Your task to perform on an android device: Go to Reddit.com Image 0: 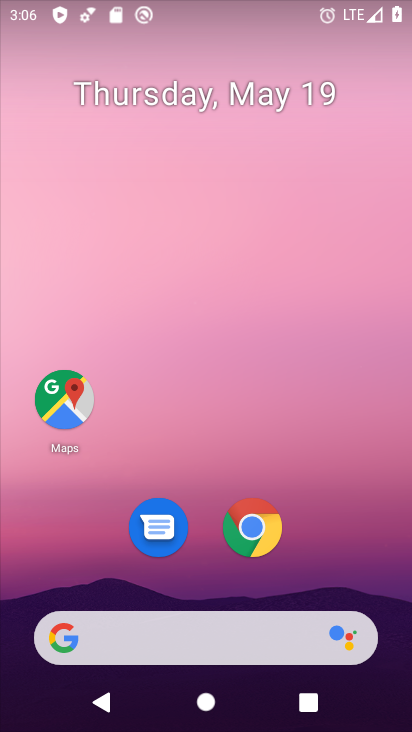
Step 0: click (258, 528)
Your task to perform on an android device: Go to Reddit.com Image 1: 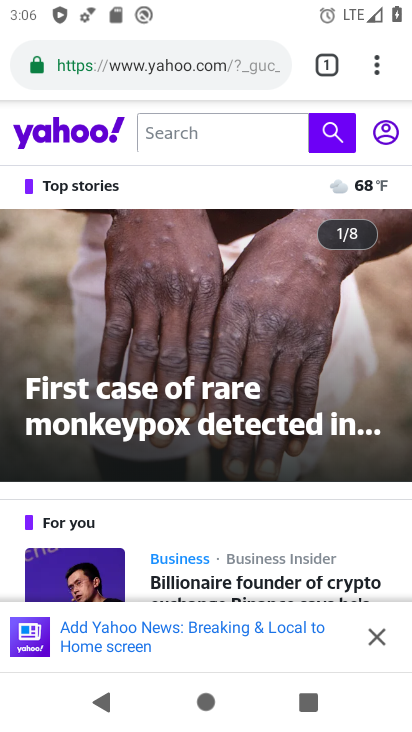
Step 1: click (328, 71)
Your task to perform on an android device: Go to Reddit.com Image 2: 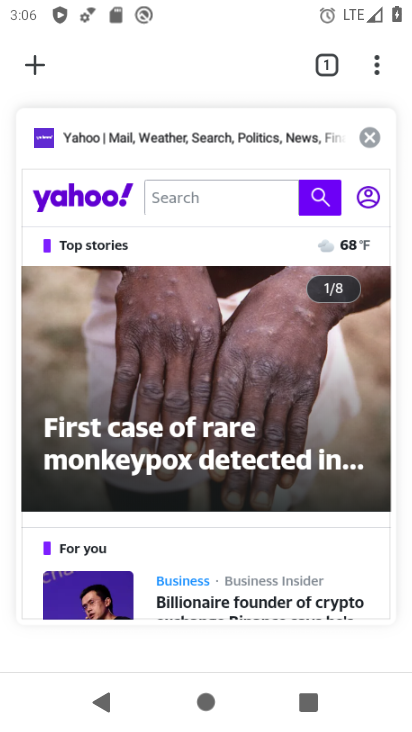
Step 2: click (37, 65)
Your task to perform on an android device: Go to Reddit.com Image 3: 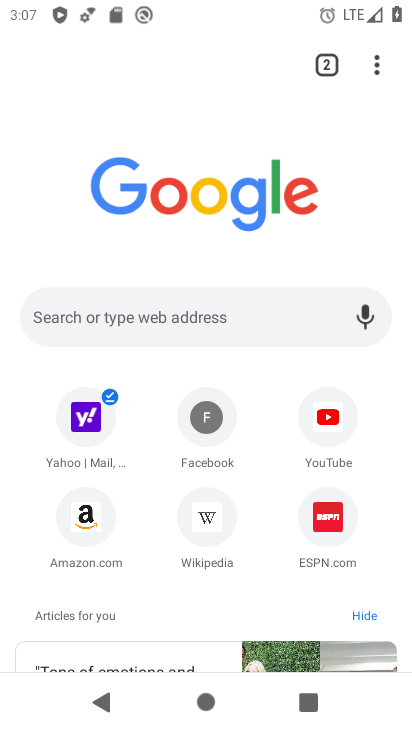
Step 3: click (77, 305)
Your task to perform on an android device: Go to Reddit.com Image 4: 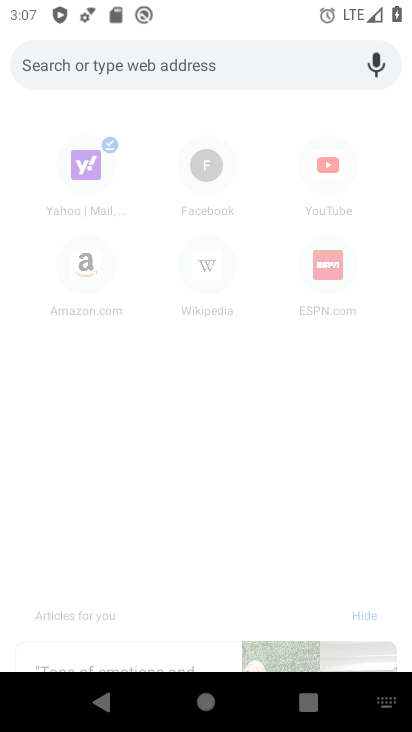
Step 4: type "reddit.com"
Your task to perform on an android device: Go to Reddit.com Image 5: 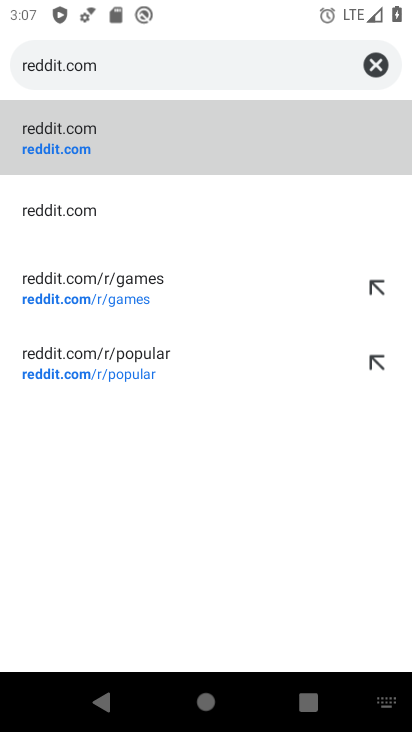
Step 5: click (61, 147)
Your task to perform on an android device: Go to Reddit.com Image 6: 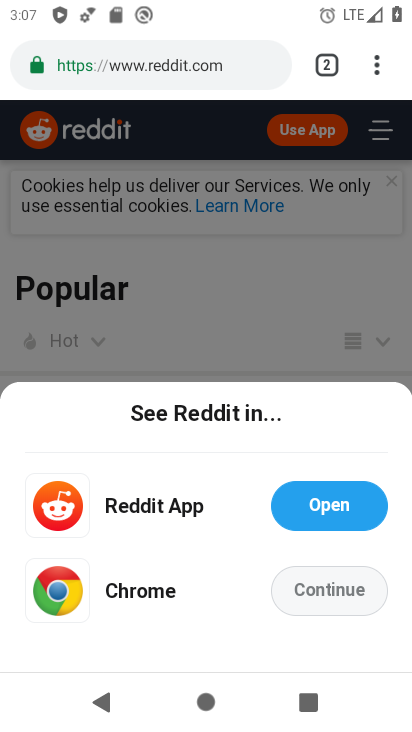
Step 6: task complete